Your task to perform on an android device: When is my next appointment? Image 0: 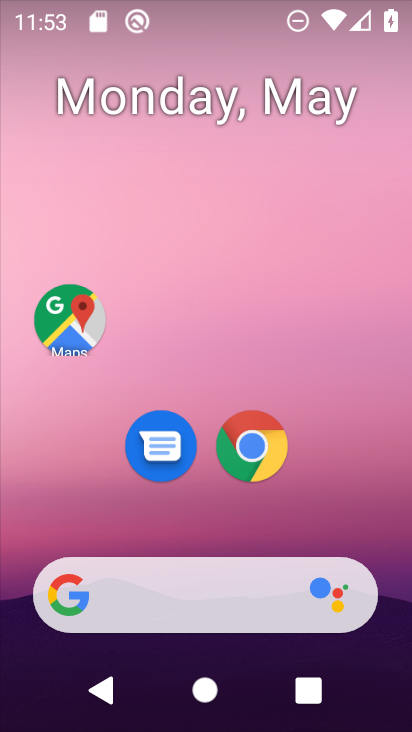
Step 0: drag from (331, 512) to (207, 92)
Your task to perform on an android device: When is my next appointment? Image 1: 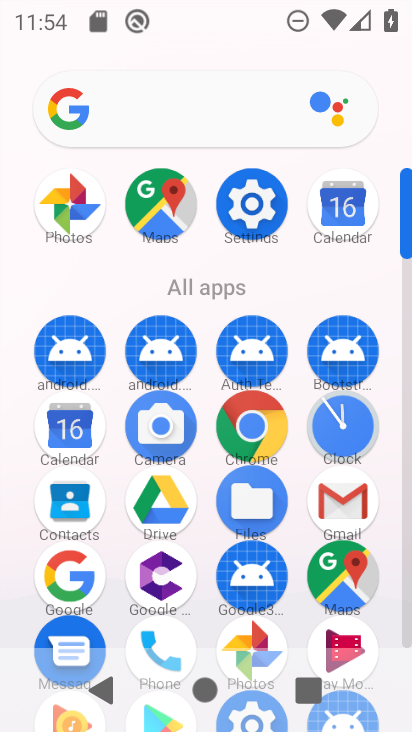
Step 1: click (71, 431)
Your task to perform on an android device: When is my next appointment? Image 2: 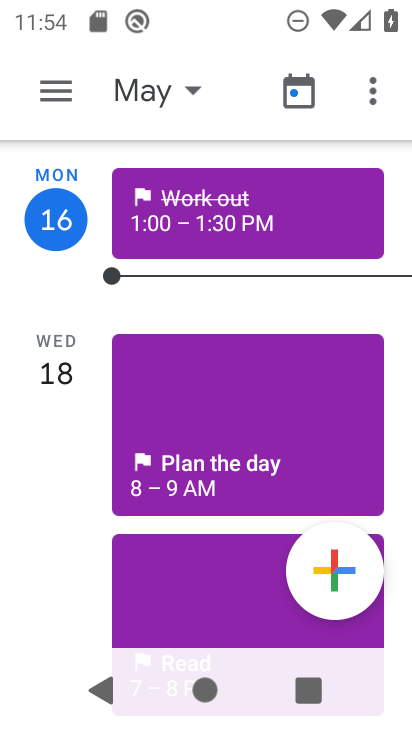
Step 2: click (300, 100)
Your task to perform on an android device: When is my next appointment? Image 3: 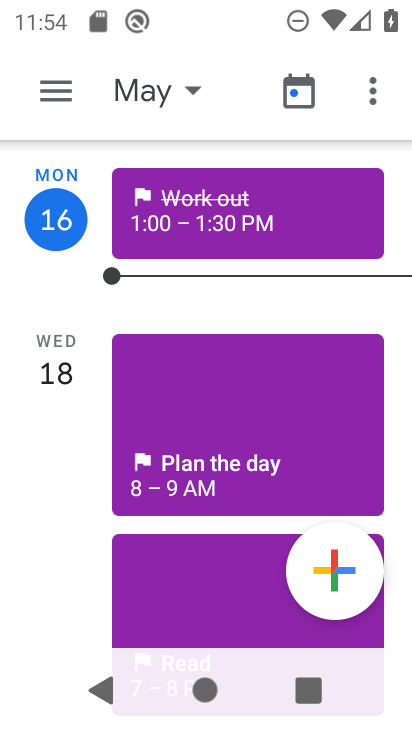
Step 3: click (190, 92)
Your task to perform on an android device: When is my next appointment? Image 4: 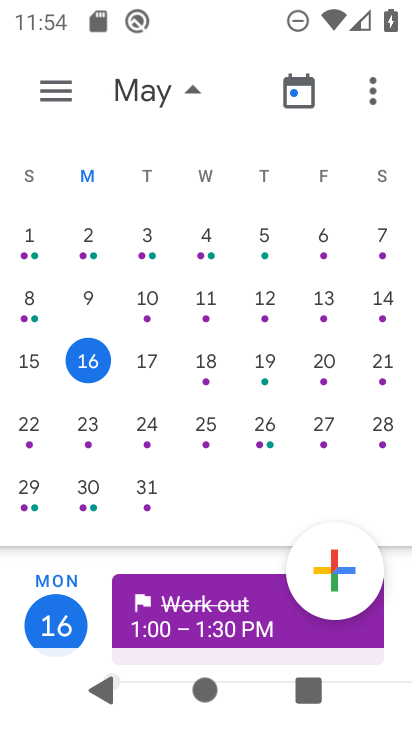
Step 4: click (216, 362)
Your task to perform on an android device: When is my next appointment? Image 5: 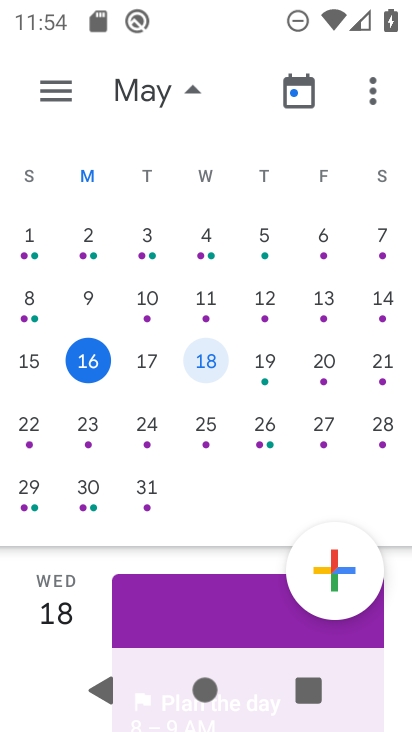
Step 5: click (64, 80)
Your task to perform on an android device: When is my next appointment? Image 6: 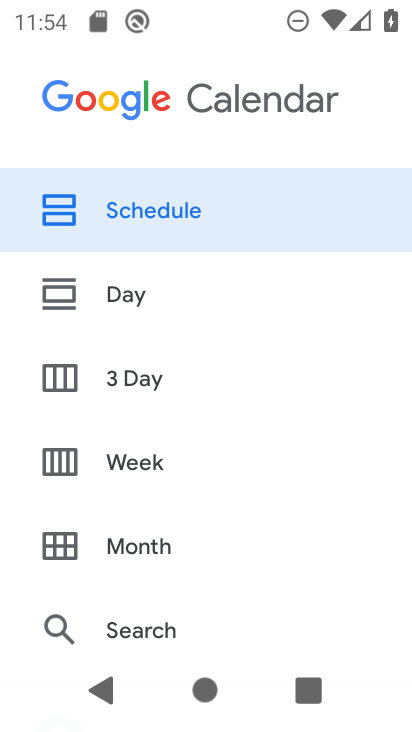
Step 6: click (154, 448)
Your task to perform on an android device: When is my next appointment? Image 7: 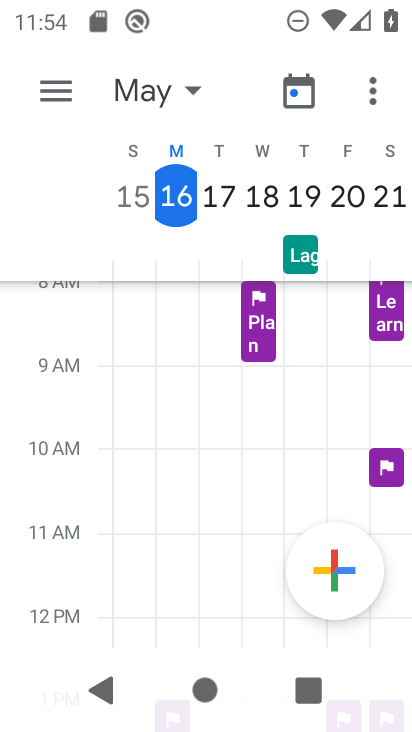
Step 7: task complete